Your task to perform on an android device: turn off priority inbox in the gmail app Image 0: 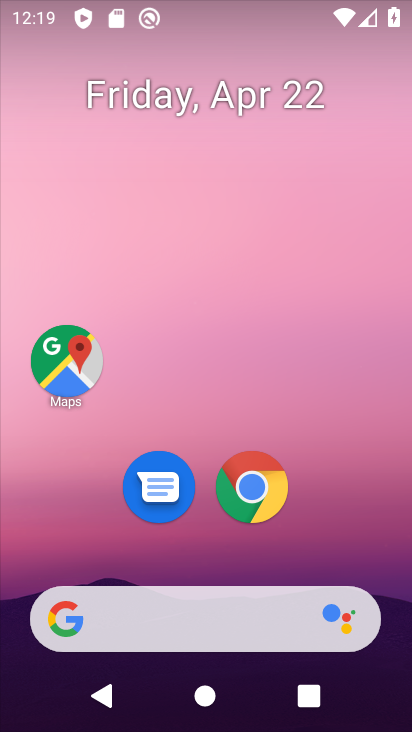
Step 0: drag from (300, 521) to (313, 85)
Your task to perform on an android device: turn off priority inbox in the gmail app Image 1: 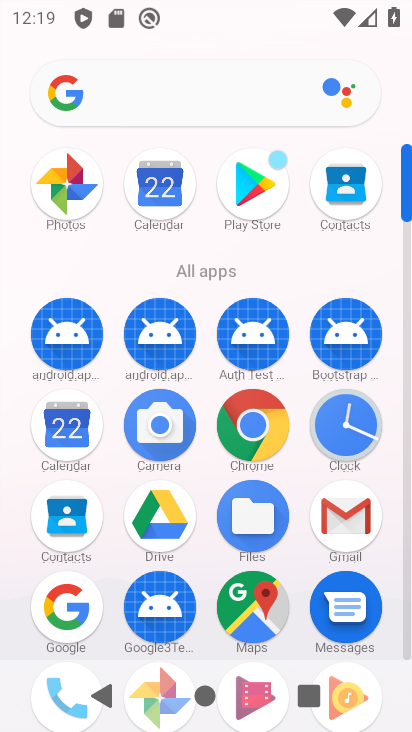
Step 1: click (359, 501)
Your task to perform on an android device: turn off priority inbox in the gmail app Image 2: 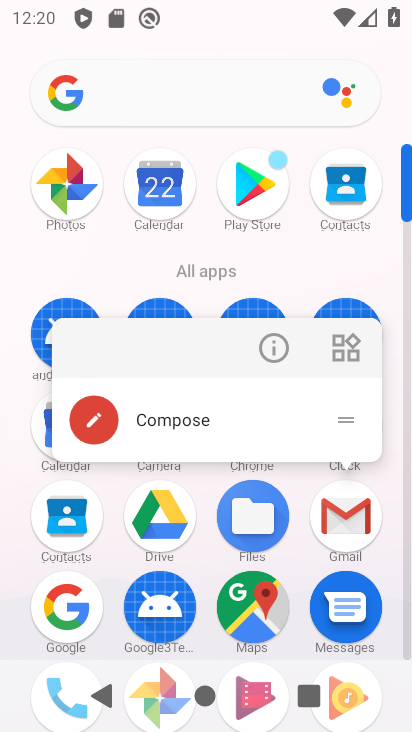
Step 2: click (326, 499)
Your task to perform on an android device: turn off priority inbox in the gmail app Image 3: 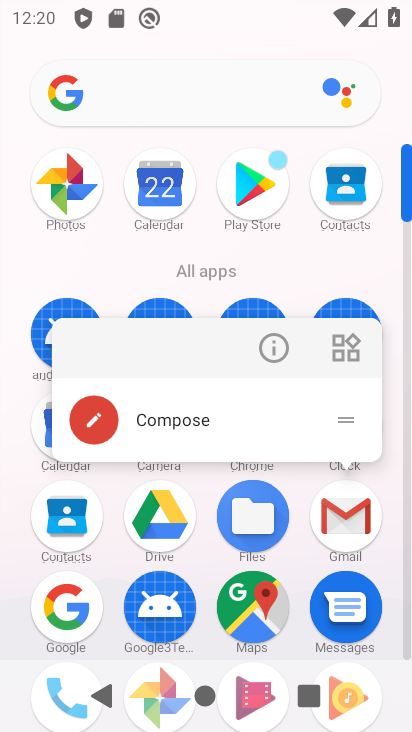
Step 3: click (366, 509)
Your task to perform on an android device: turn off priority inbox in the gmail app Image 4: 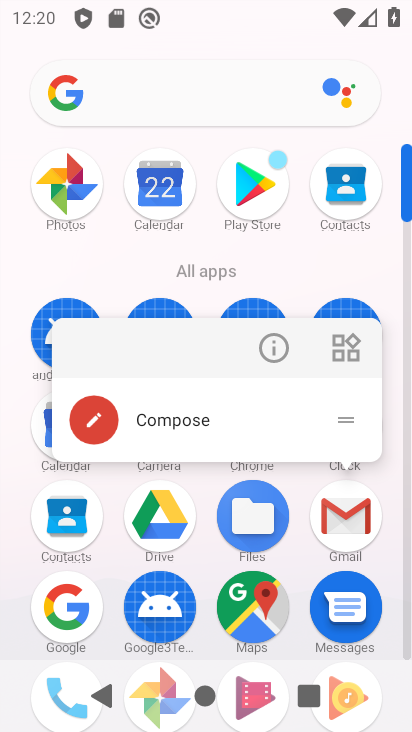
Step 4: click (359, 516)
Your task to perform on an android device: turn off priority inbox in the gmail app Image 5: 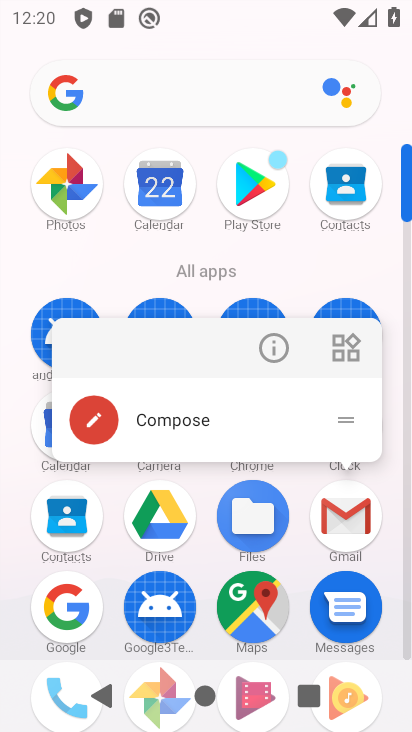
Step 5: click (358, 517)
Your task to perform on an android device: turn off priority inbox in the gmail app Image 6: 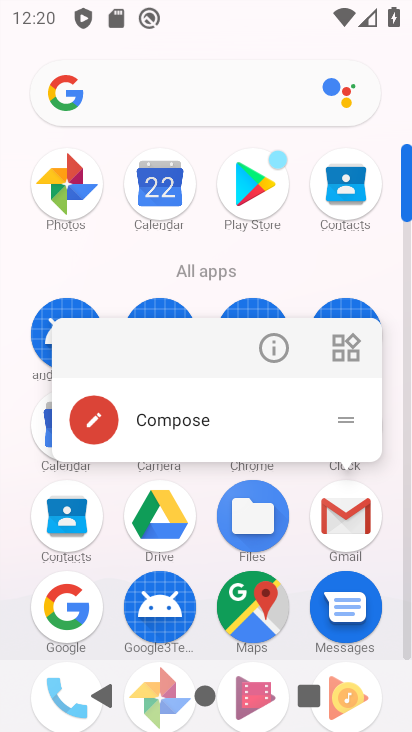
Step 6: click (358, 517)
Your task to perform on an android device: turn off priority inbox in the gmail app Image 7: 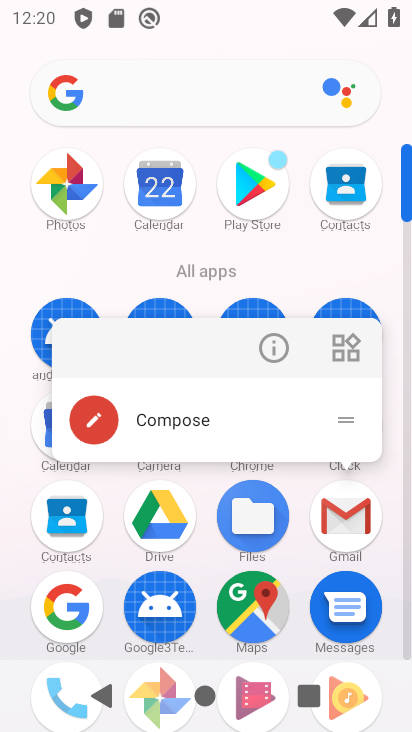
Step 7: click (341, 516)
Your task to perform on an android device: turn off priority inbox in the gmail app Image 8: 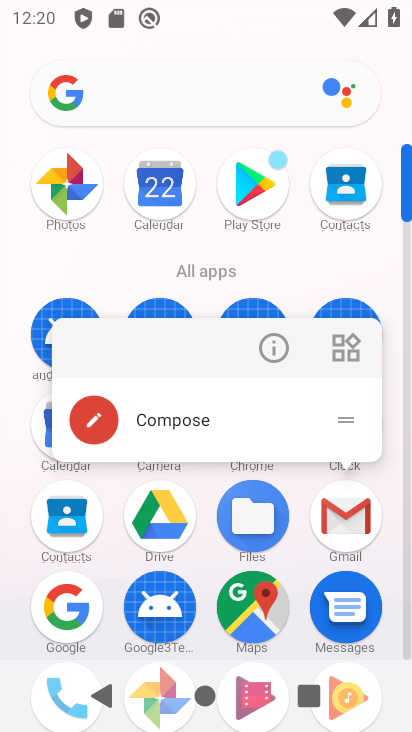
Step 8: click (341, 516)
Your task to perform on an android device: turn off priority inbox in the gmail app Image 9: 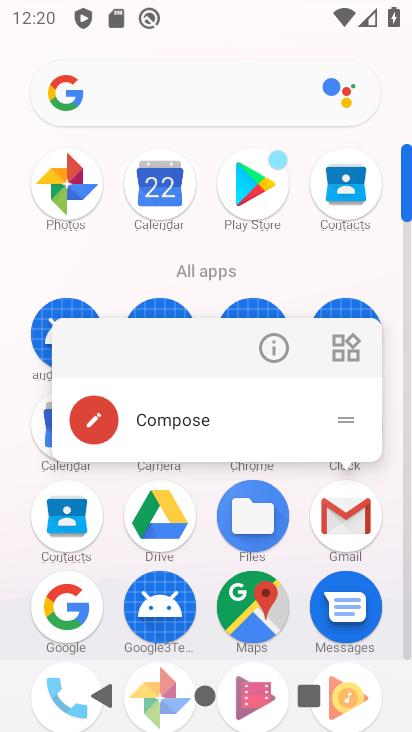
Step 9: click (341, 515)
Your task to perform on an android device: turn off priority inbox in the gmail app Image 10: 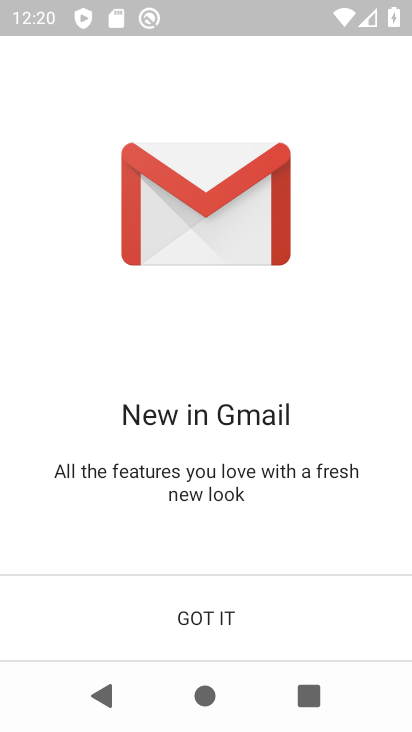
Step 10: click (225, 614)
Your task to perform on an android device: turn off priority inbox in the gmail app Image 11: 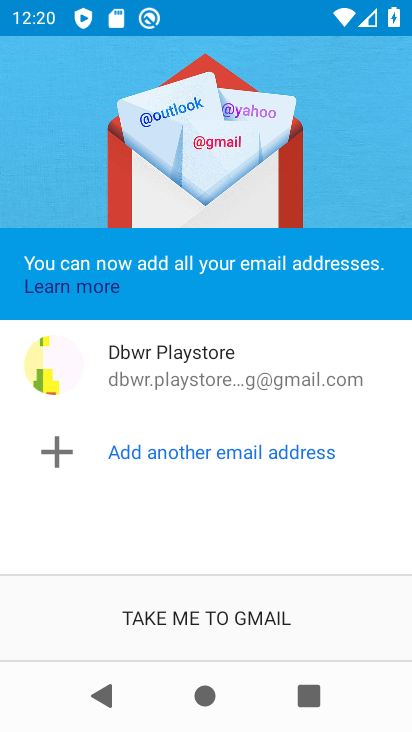
Step 11: click (232, 602)
Your task to perform on an android device: turn off priority inbox in the gmail app Image 12: 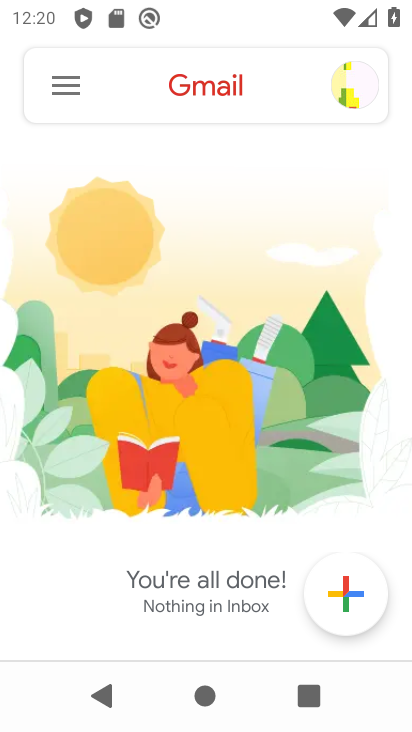
Step 12: click (71, 78)
Your task to perform on an android device: turn off priority inbox in the gmail app Image 13: 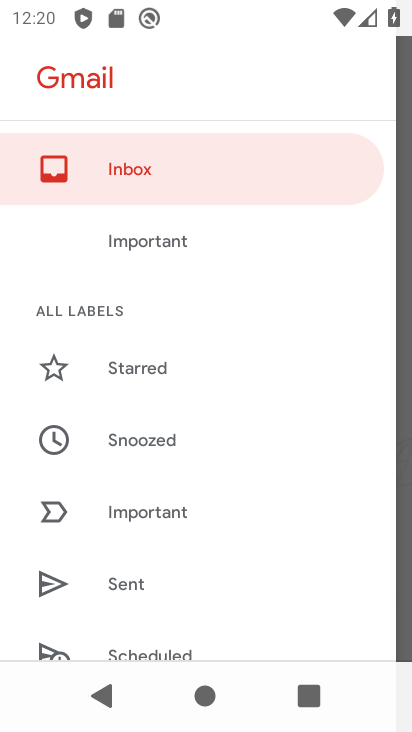
Step 13: drag from (159, 581) to (297, 6)
Your task to perform on an android device: turn off priority inbox in the gmail app Image 14: 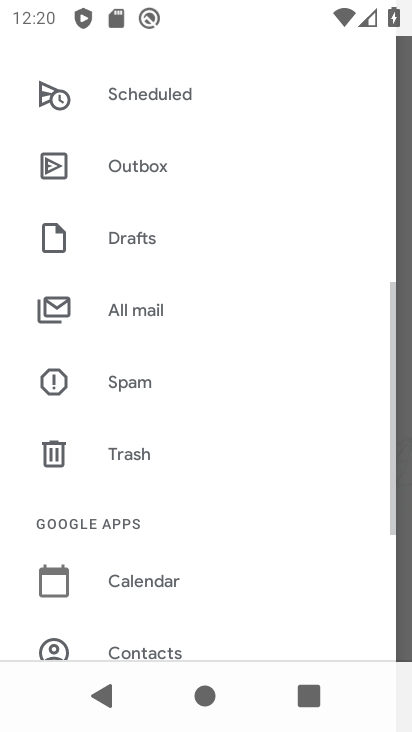
Step 14: drag from (211, 619) to (274, 42)
Your task to perform on an android device: turn off priority inbox in the gmail app Image 15: 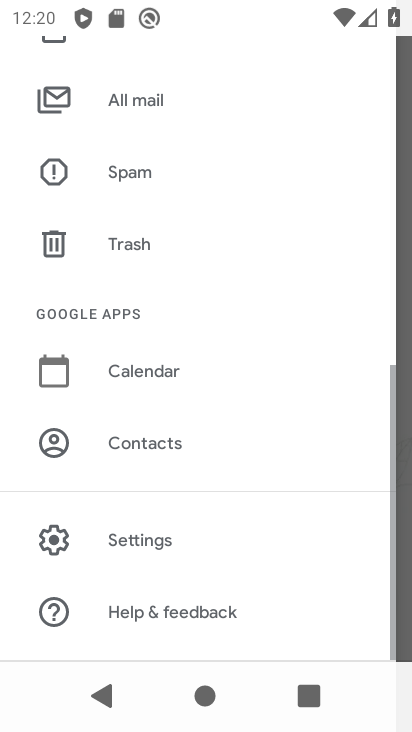
Step 15: drag from (194, 520) to (249, 123)
Your task to perform on an android device: turn off priority inbox in the gmail app Image 16: 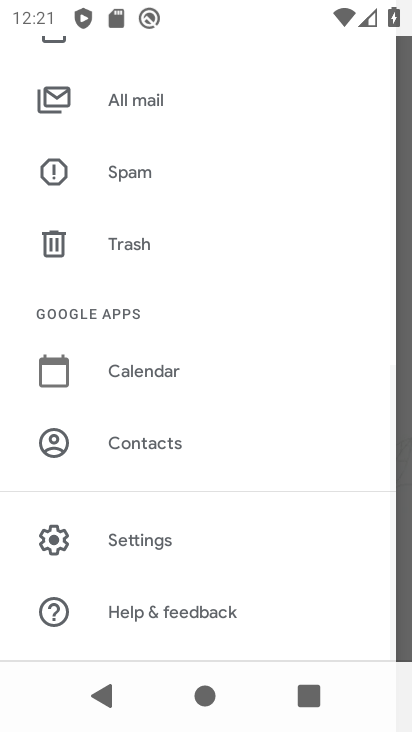
Step 16: click (130, 547)
Your task to perform on an android device: turn off priority inbox in the gmail app Image 17: 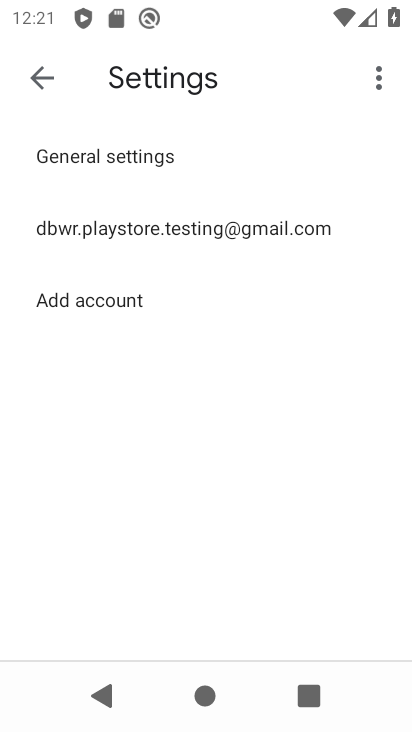
Step 17: click (122, 231)
Your task to perform on an android device: turn off priority inbox in the gmail app Image 18: 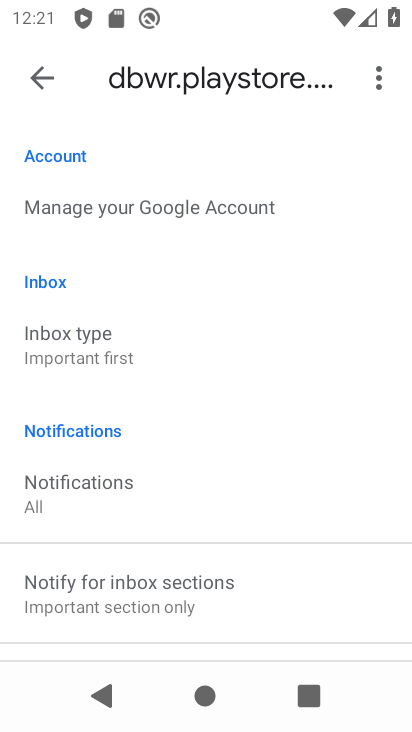
Step 18: drag from (174, 579) to (259, 226)
Your task to perform on an android device: turn off priority inbox in the gmail app Image 19: 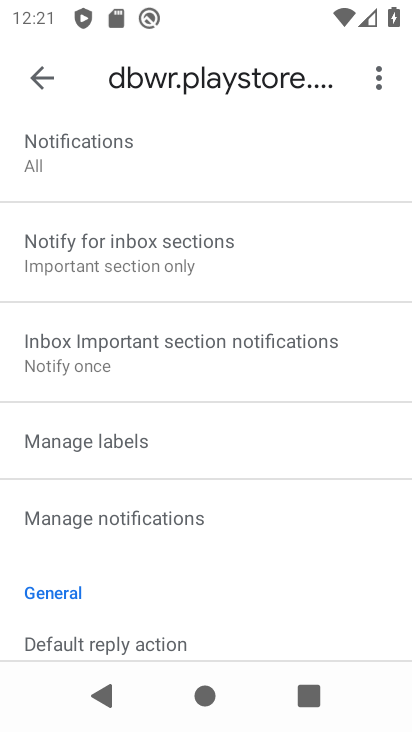
Step 19: drag from (213, 281) to (207, 616)
Your task to perform on an android device: turn off priority inbox in the gmail app Image 20: 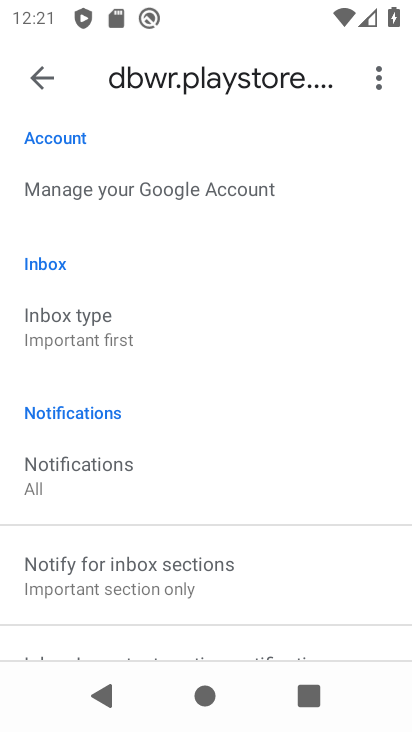
Step 20: drag from (260, 465) to (258, 555)
Your task to perform on an android device: turn off priority inbox in the gmail app Image 21: 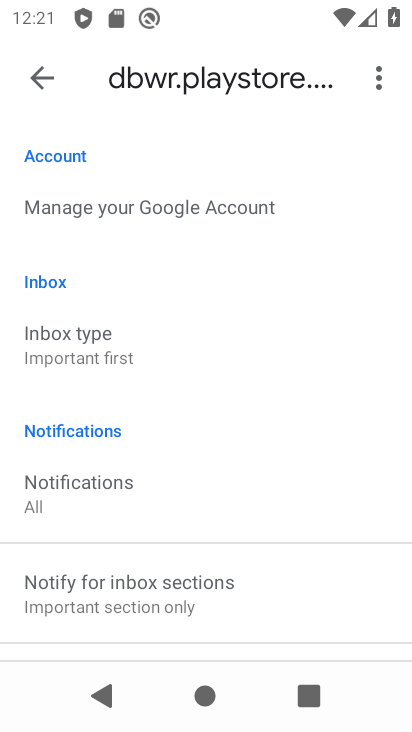
Step 21: click (97, 350)
Your task to perform on an android device: turn off priority inbox in the gmail app Image 22: 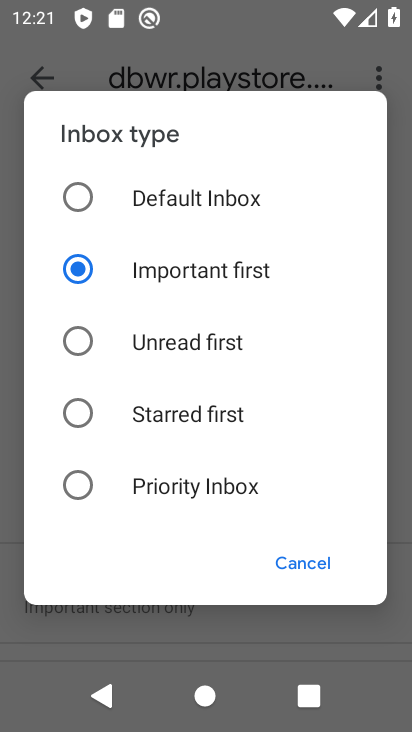
Step 22: task complete